Your task to perform on an android device: Go to internet settings Image 0: 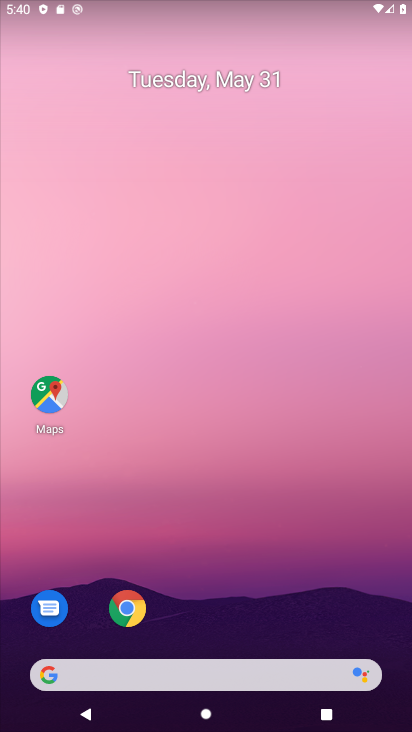
Step 0: drag from (203, 652) to (176, 247)
Your task to perform on an android device: Go to internet settings Image 1: 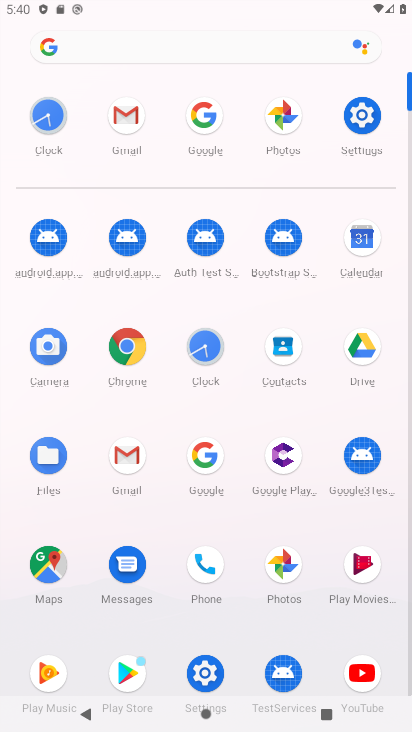
Step 1: click (366, 135)
Your task to perform on an android device: Go to internet settings Image 2: 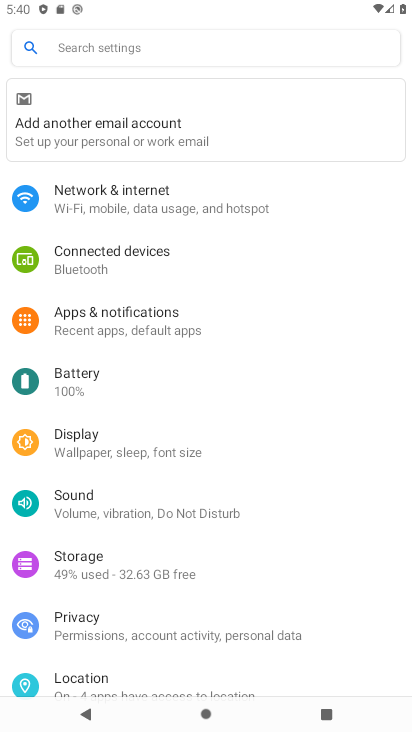
Step 2: click (109, 204)
Your task to perform on an android device: Go to internet settings Image 3: 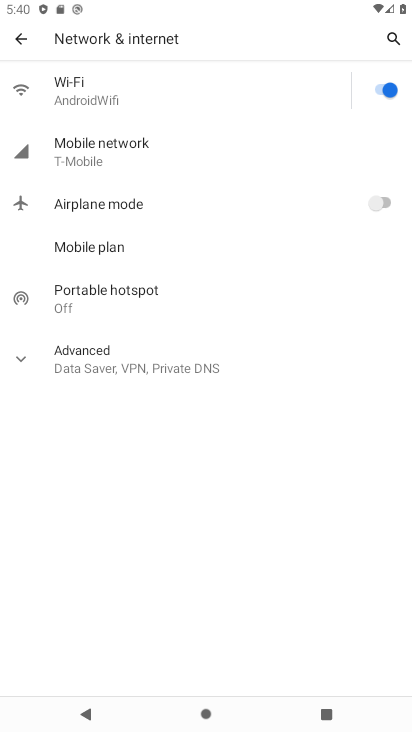
Step 3: click (102, 362)
Your task to perform on an android device: Go to internet settings Image 4: 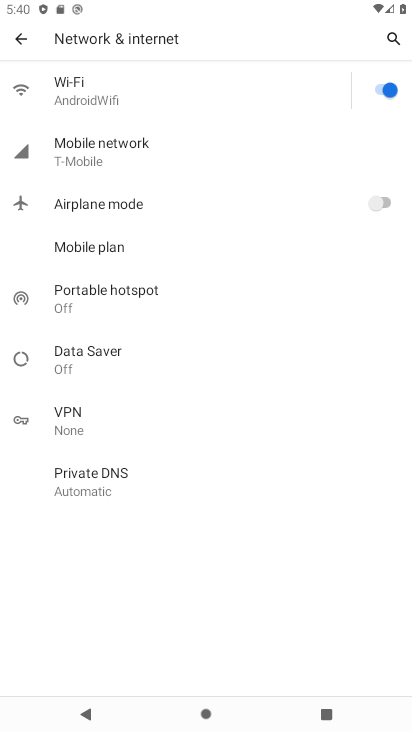
Step 4: task complete